Your task to perform on an android device: allow cookies in the chrome app Image 0: 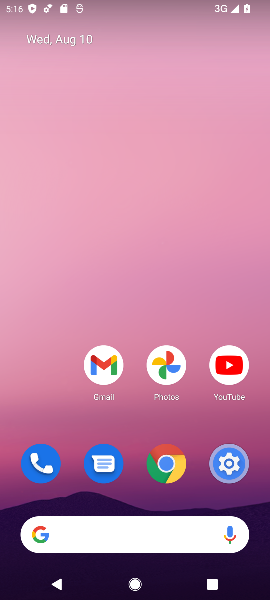
Step 0: click (163, 461)
Your task to perform on an android device: allow cookies in the chrome app Image 1: 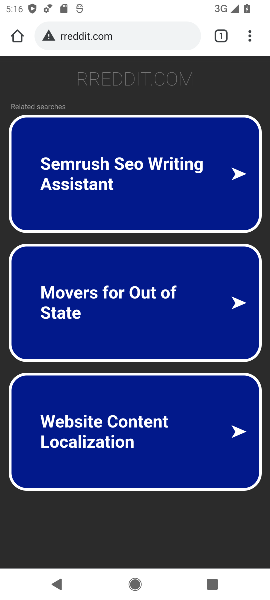
Step 1: click (247, 26)
Your task to perform on an android device: allow cookies in the chrome app Image 2: 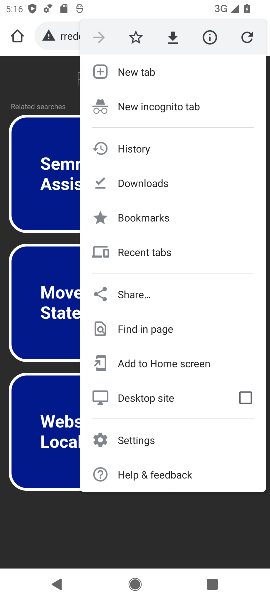
Step 2: click (134, 435)
Your task to perform on an android device: allow cookies in the chrome app Image 3: 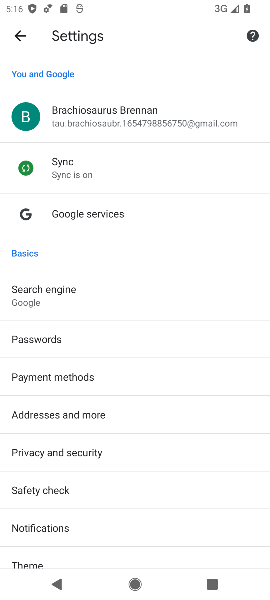
Step 3: drag from (128, 493) to (62, 166)
Your task to perform on an android device: allow cookies in the chrome app Image 4: 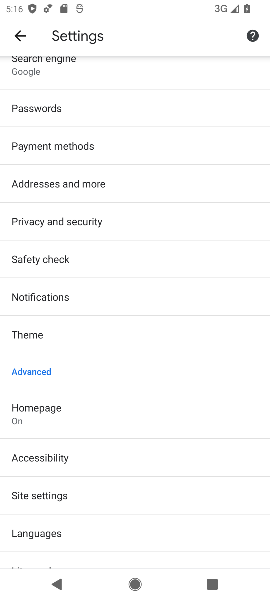
Step 4: click (26, 498)
Your task to perform on an android device: allow cookies in the chrome app Image 5: 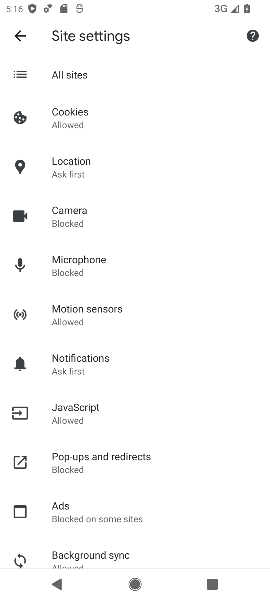
Step 5: click (73, 117)
Your task to perform on an android device: allow cookies in the chrome app Image 6: 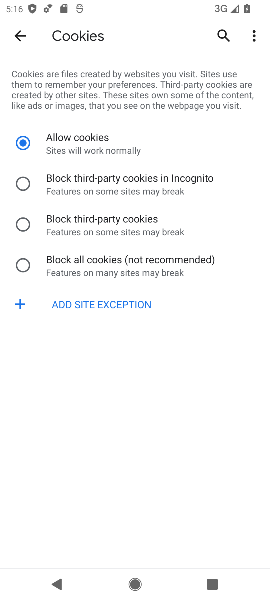
Step 6: task complete